Your task to perform on an android device: add a contact Image 0: 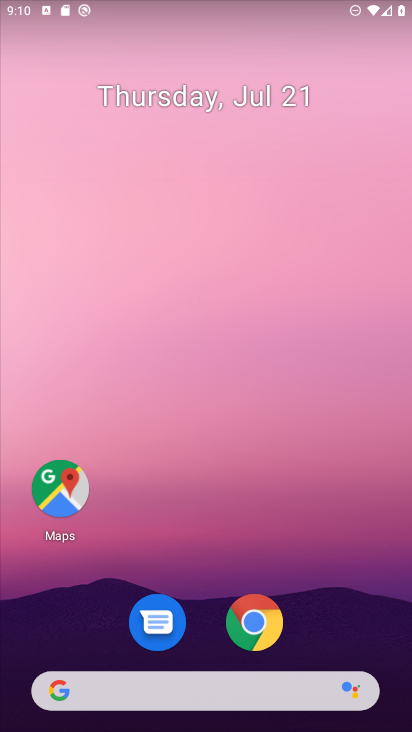
Step 0: drag from (164, 680) to (142, 7)
Your task to perform on an android device: add a contact Image 1: 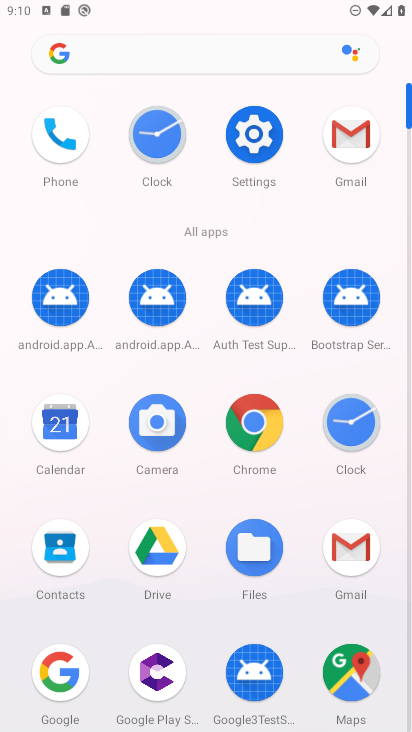
Step 1: drag from (246, 401) to (295, 55)
Your task to perform on an android device: add a contact Image 2: 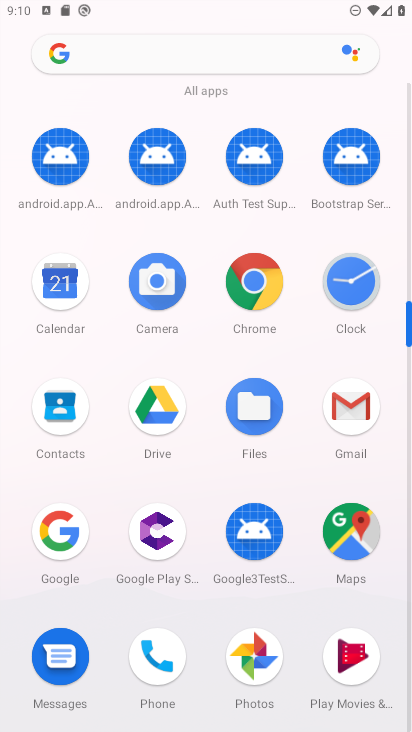
Step 2: drag from (176, 637) to (144, 170)
Your task to perform on an android device: add a contact Image 3: 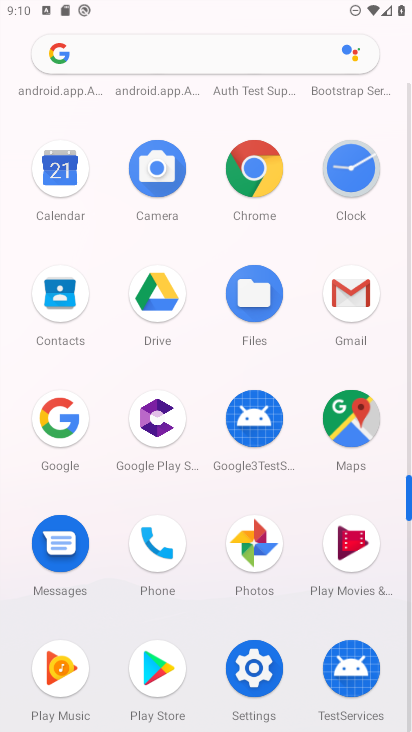
Step 3: drag from (214, 596) to (187, 189)
Your task to perform on an android device: add a contact Image 4: 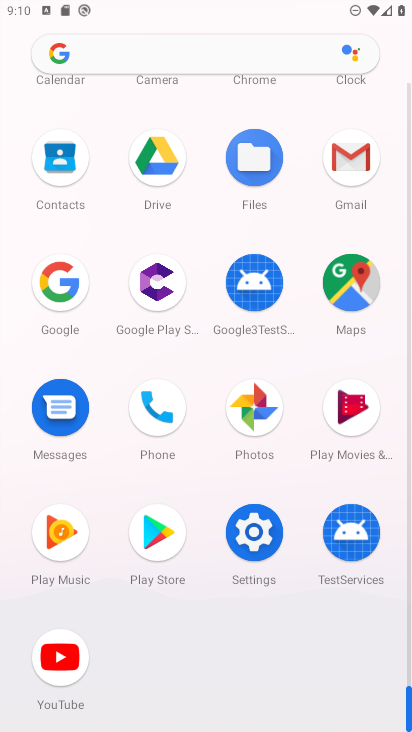
Step 4: click (65, 159)
Your task to perform on an android device: add a contact Image 5: 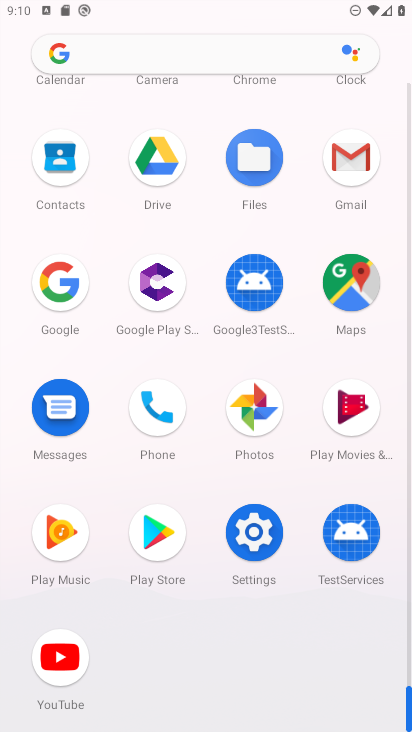
Step 5: click (65, 159)
Your task to perform on an android device: add a contact Image 6: 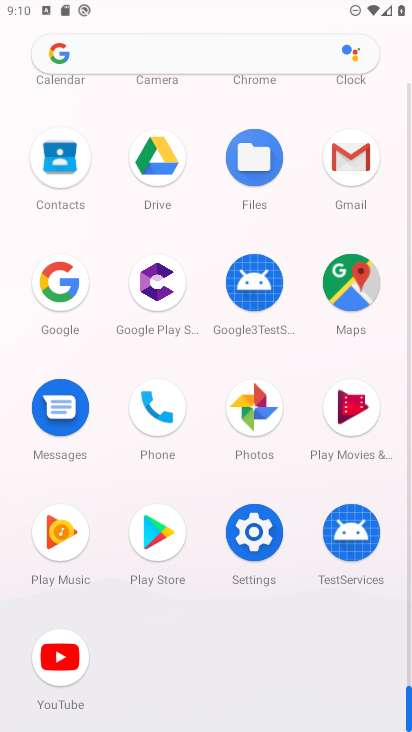
Step 6: click (65, 159)
Your task to perform on an android device: add a contact Image 7: 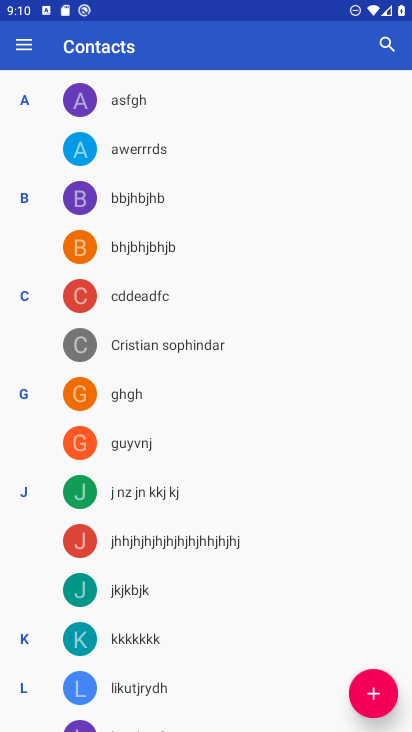
Step 7: click (382, 706)
Your task to perform on an android device: add a contact Image 8: 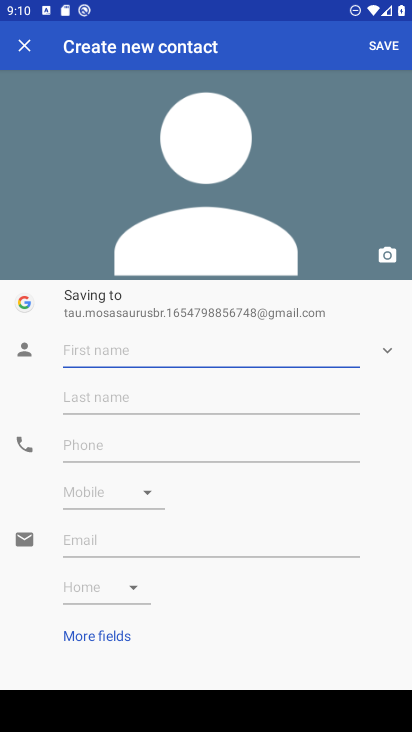
Step 8: type "hgfu"
Your task to perform on an android device: add a contact Image 9: 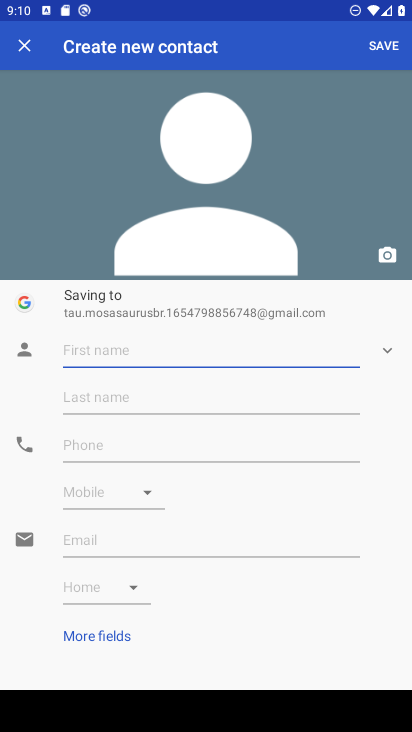
Step 9: click (177, 444)
Your task to perform on an android device: add a contact Image 10: 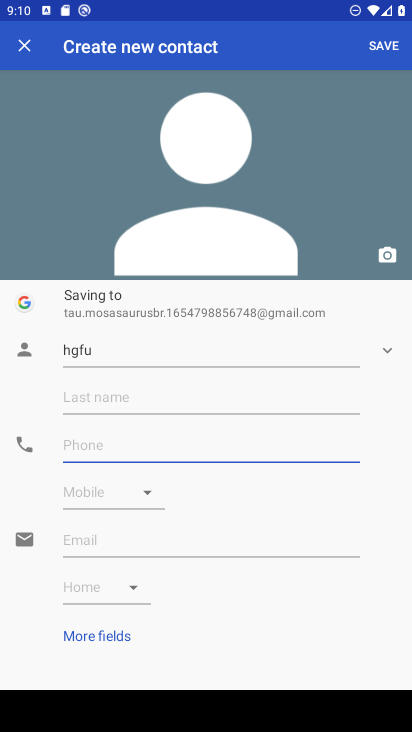
Step 10: type "76658678"
Your task to perform on an android device: add a contact Image 11: 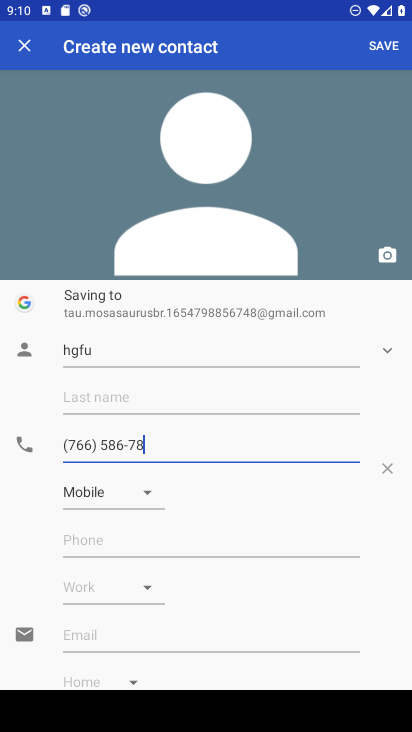
Step 11: click (378, 48)
Your task to perform on an android device: add a contact Image 12: 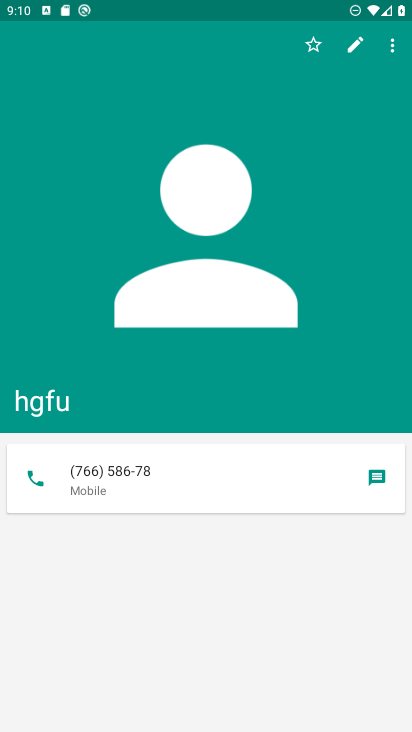
Step 12: task complete